Your task to perform on an android device: Go to CNN.com Image 0: 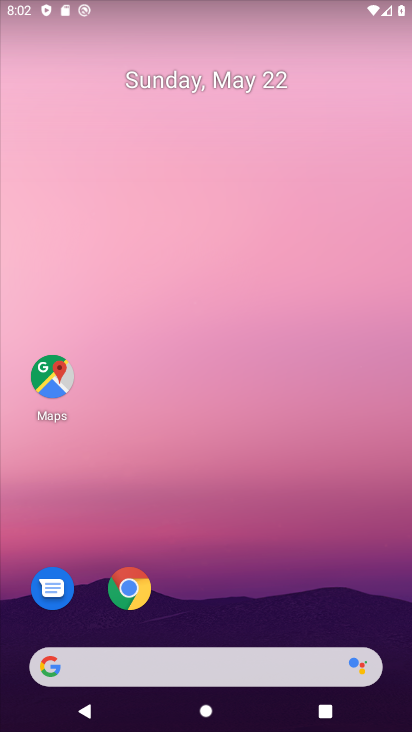
Step 0: click (139, 592)
Your task to perform on an android device: Go to CNN.com Image 1: 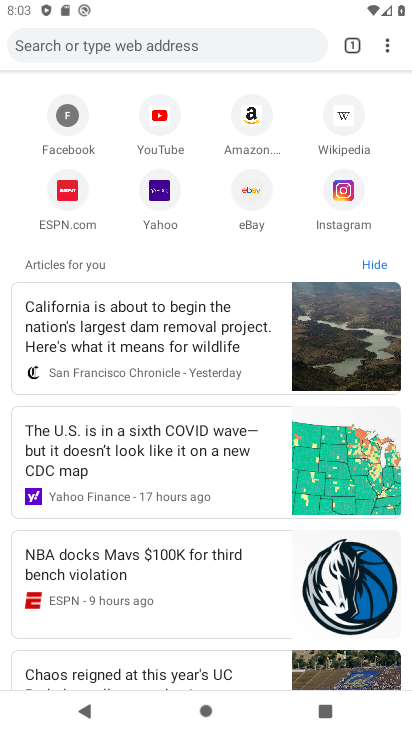
Step 1: click (217, 52)
Your task to perform on an android device: Go to CNN.com Image 2: 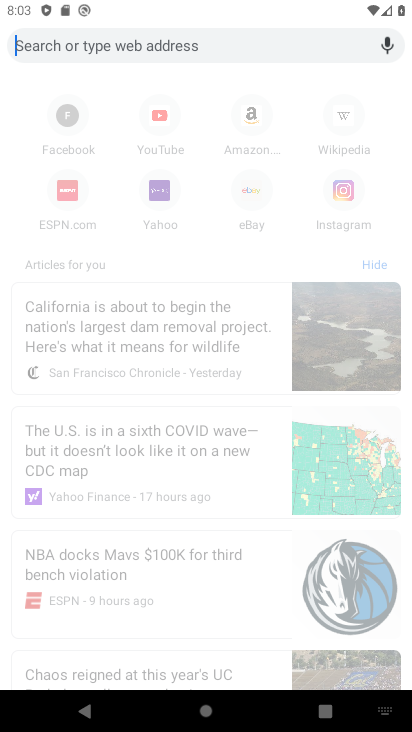
Step 2: type "CNN.com"
Your task to perform on an android device: Go to CNN.com Image 3: 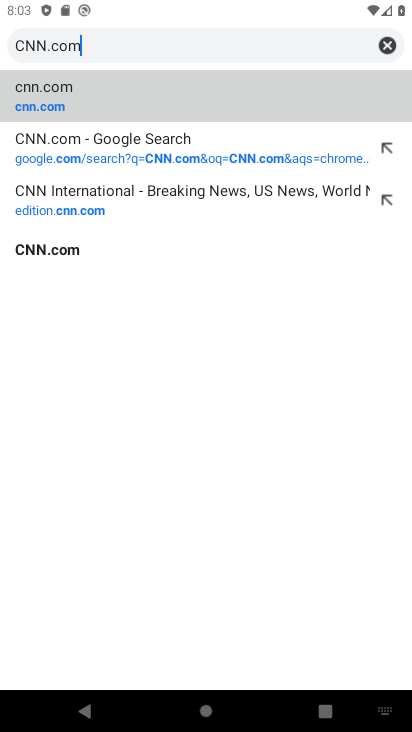
Step 3: click (256, 102)
Your task to perform on an android device: Go to CNN.com Image 4: 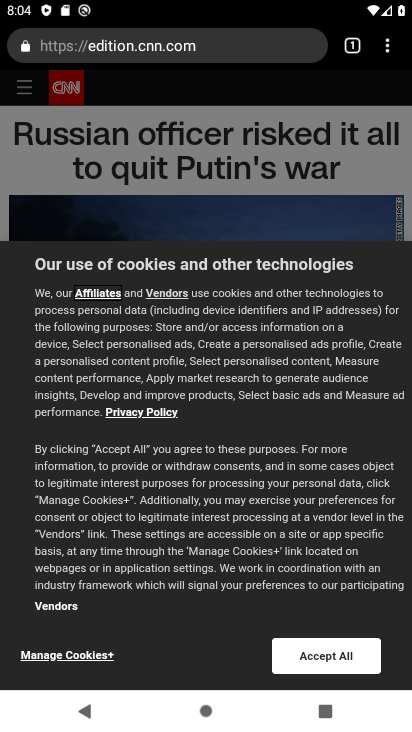
Step 4: task complete